Your task to perform on an android device: toggle sleep mode Image 0: 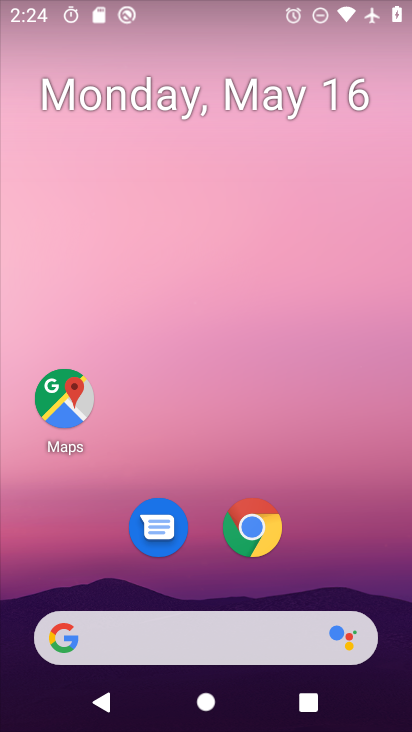
Step 0: press home button
Your task to perform on an android device: toggle sleep mode Image 1: 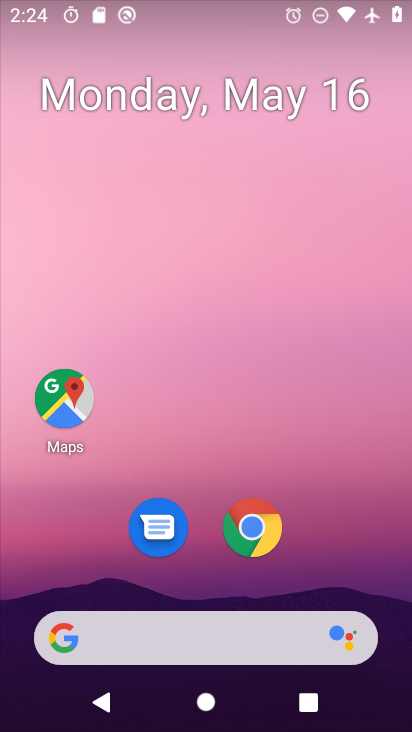
Step 1: drag from (152, 647) to (273, 183)
Your task to perform on an android device: toggle sleep mode Image 2: 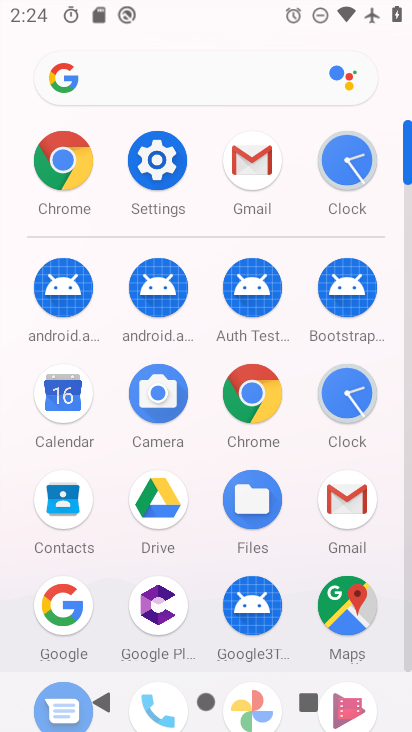
Step 2: click (151, 157)
Your task to perform on an android device: toggle sleep mode Image 3: 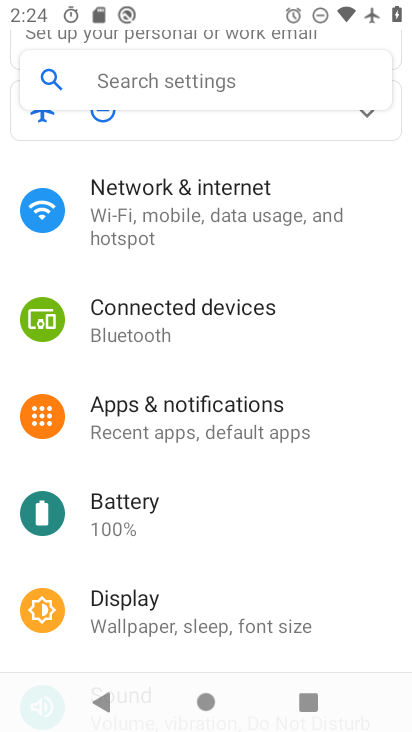
Step 3: click (164, 609)
Your task to perform on an android device: toggle sleep mode Image 4: 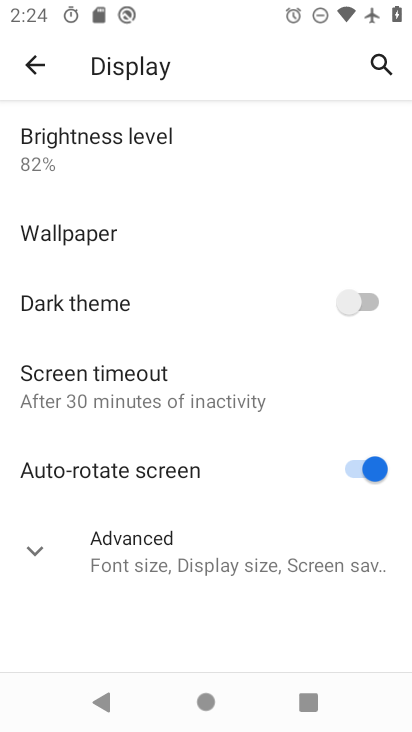
Step 4: task complete